Your task to perform on an android device: open app "DoorDash - Food Delivery" (install if not already installed) and go to login screen Image 0: 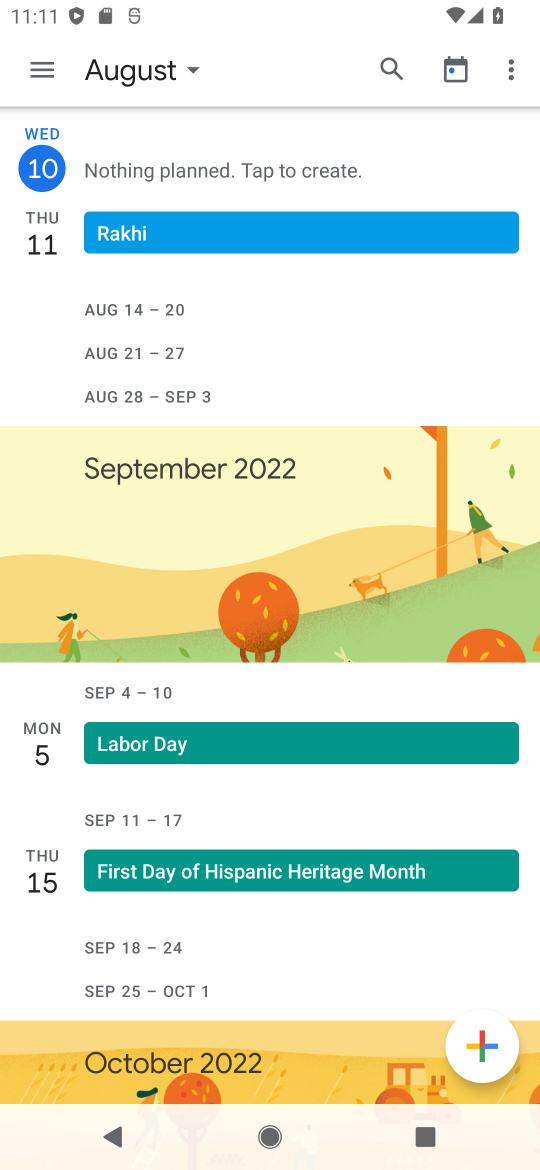
Step 0: press home button
Your task to perform on an android device: open app "DoorDash - Food Delivery" (install if not already installed) and go to login screen Image 1: 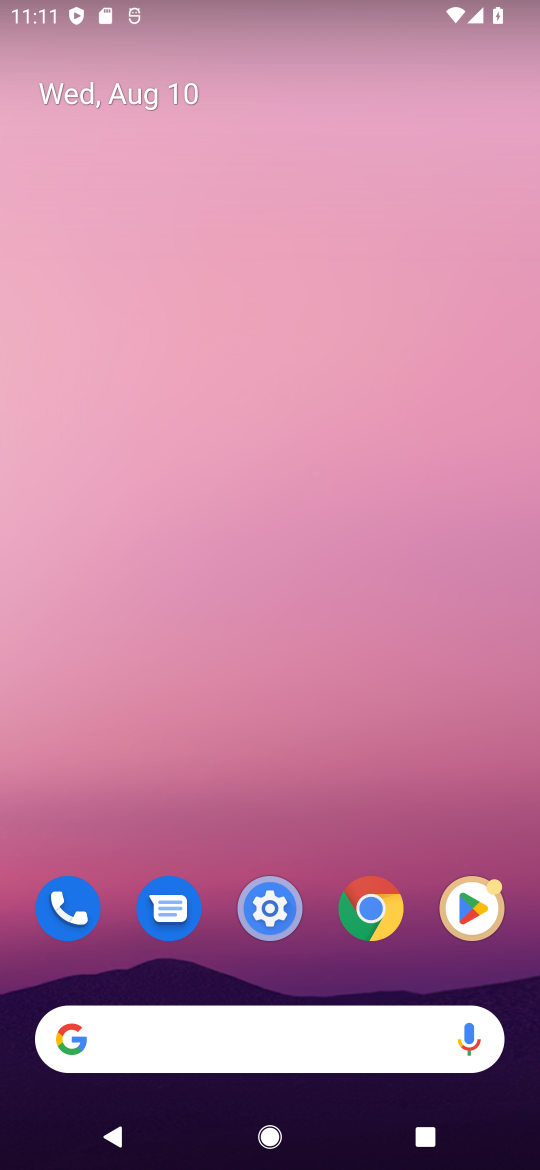
Step 1: click (474, 893)
Your task to perform on an android device: open app "DoorDash - Food Delivery" (install if not already installed) and go to login screen Image 2: 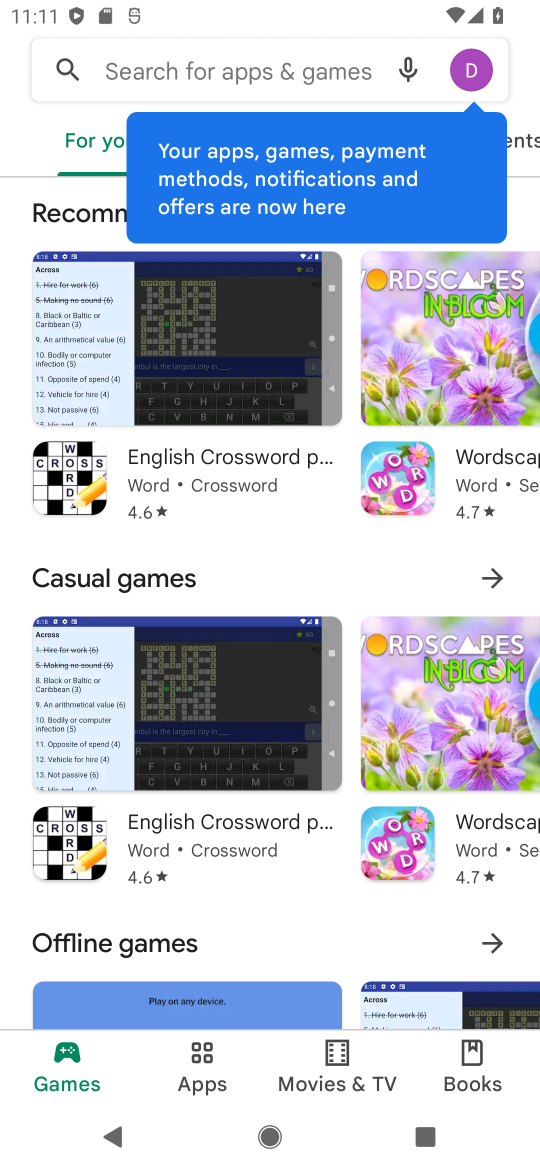
Step 2: click (277, 71)
Your task to perform on an android device: open app "DoorDash - Food Delivery" (install if not already installed) and go to login screen Image 3: 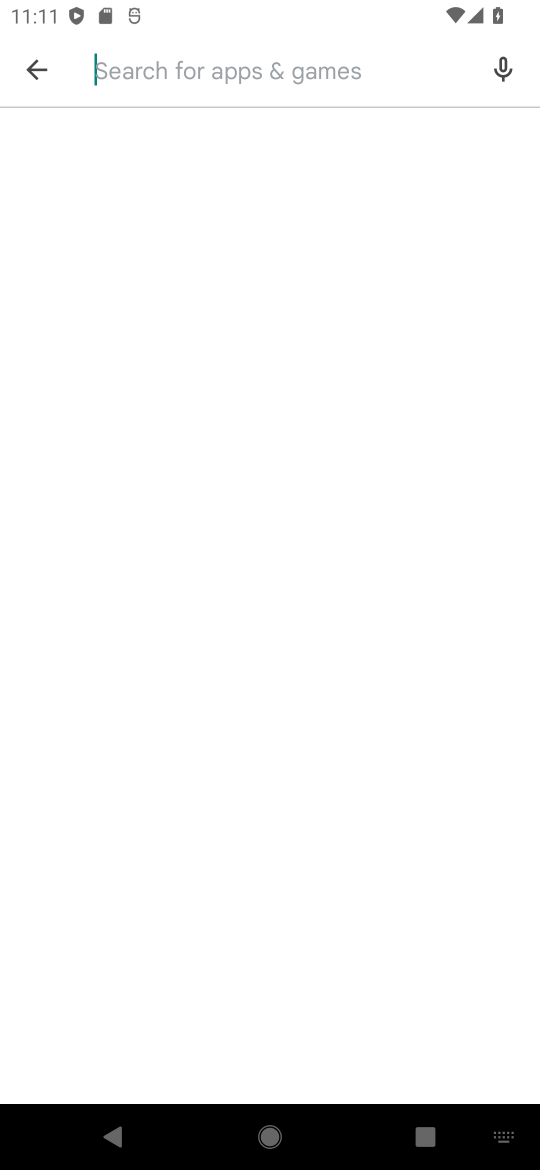
Step 3: type "door dash"
Your task to perform on an android device: open app "DoorDash - Food Delivery" (install if not already installed) and go to login screen Image 4: 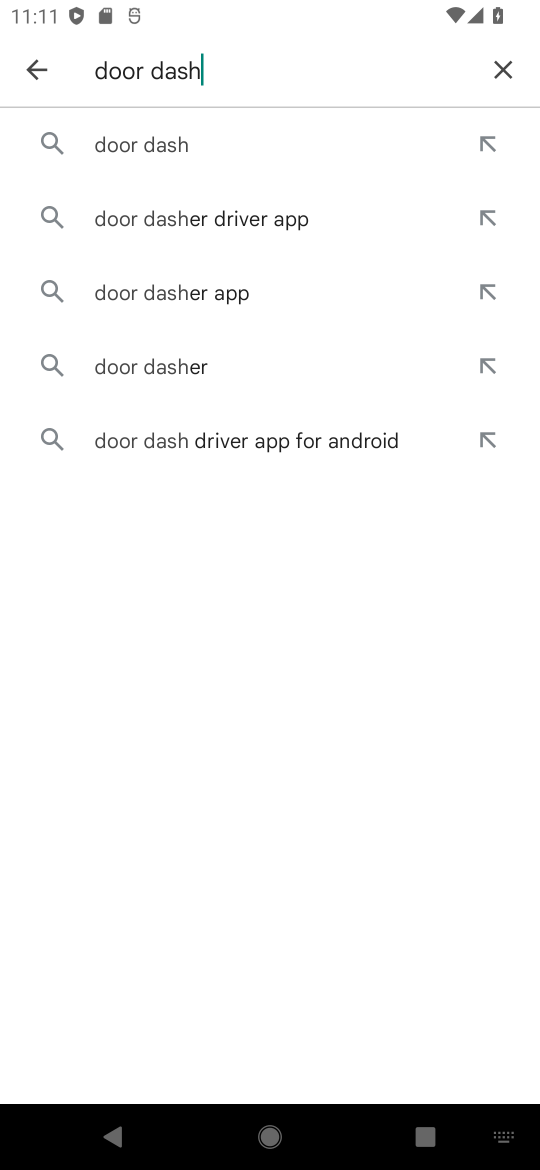
Step 4: click (271, 145)
Your task to perform on an android device: open app "DoorDash - Food Delivery" (install if not already installed) and go to login screen Image 5: 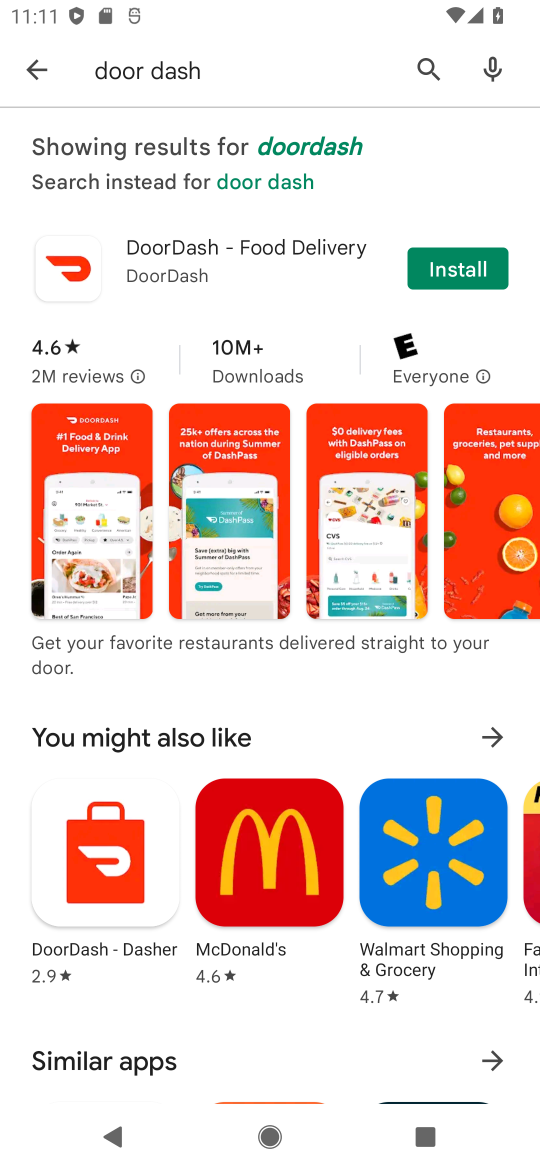
Step 5: click (343, 251)
Your task to perform on an android device: open app "DoorDash - Food Delivery" (install if not already installed) and go to login screen Image 6: 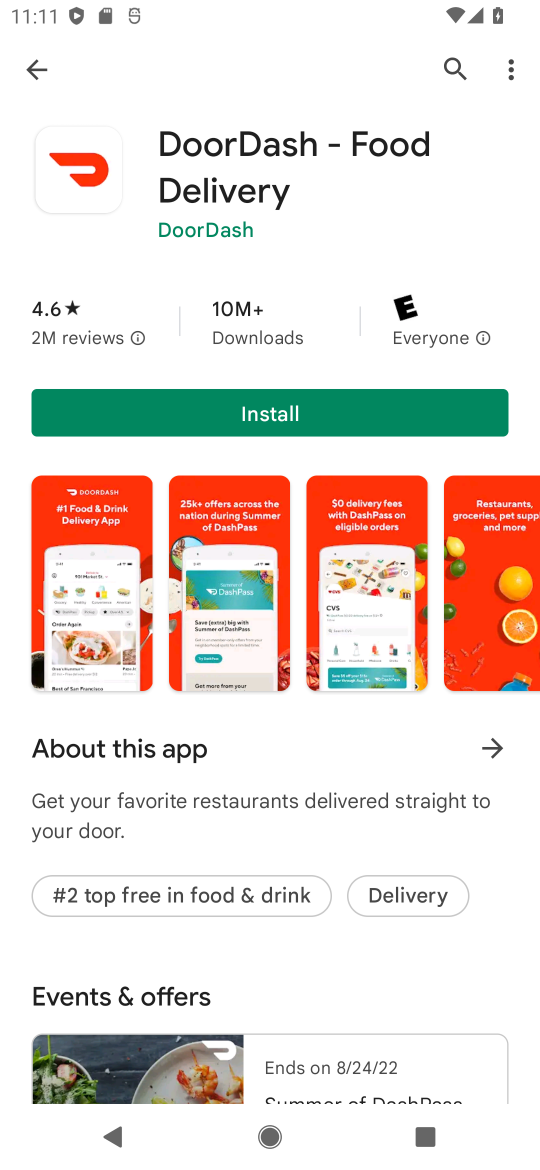
Step 6: click (361, 406)
Your task to perform on an android device: open app "DoorDash - Food Delivery" (install if not already installed) and go to login screen Image 7: 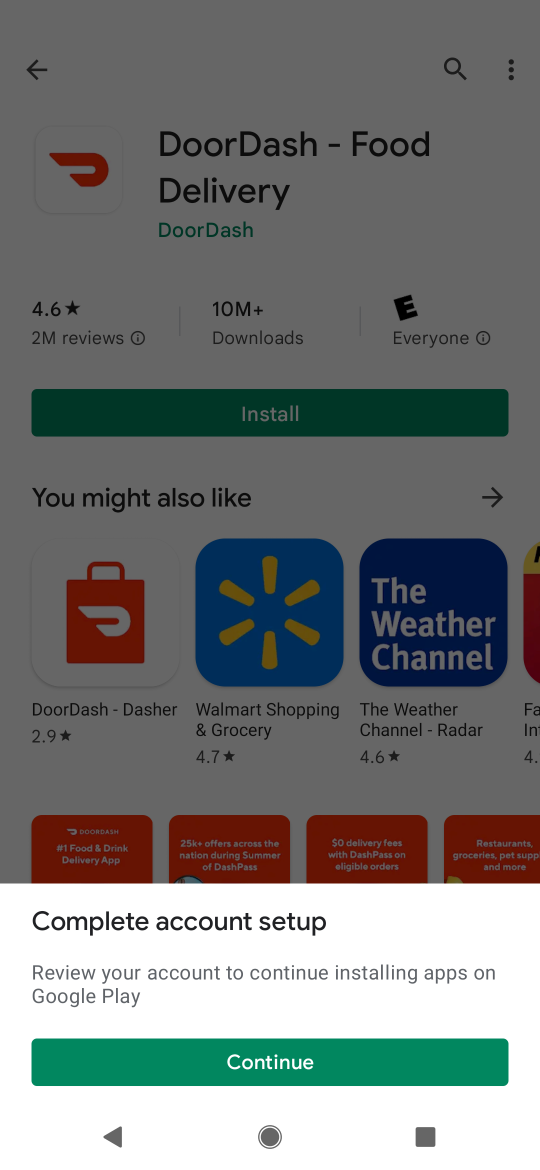
Step 7: click (486, 1069)
Your task to perform on an android device: open app "DoorDash - Food Delivery" (install if not already installed) and go to login screen Image 8: 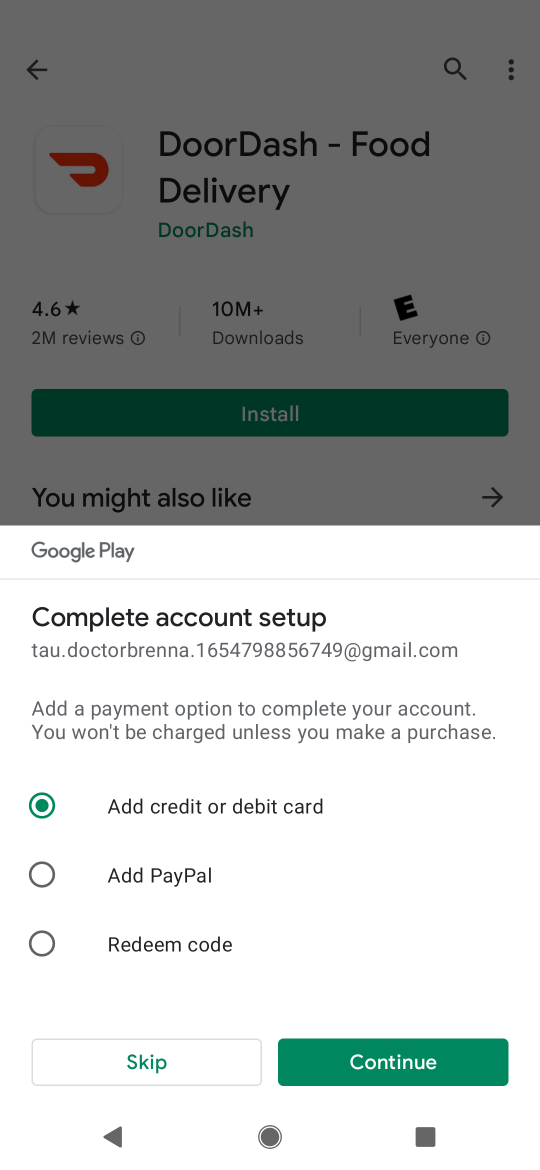
Step 8: click (104, 1065)
Your task to perform on an android device: open app "DoorDash - Food Delivery" (install if not already installed) and go to login screen Image 9: 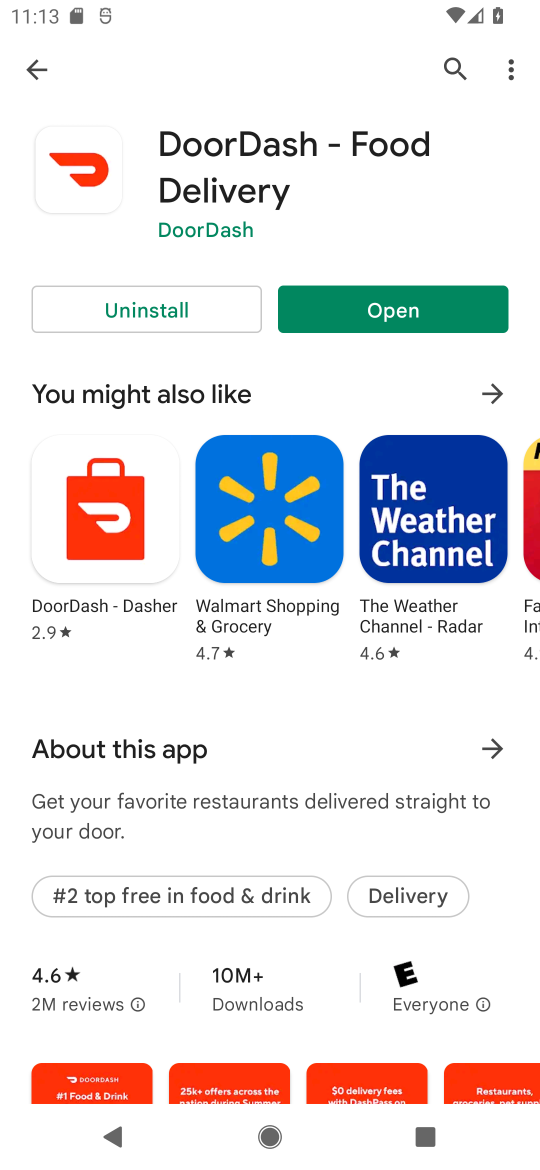
Step 9: click (427, 301)
Your task to perform on an android device: open app "DoorDash - Food Delivery" (install if not already installed) and go to login screen Image 10: 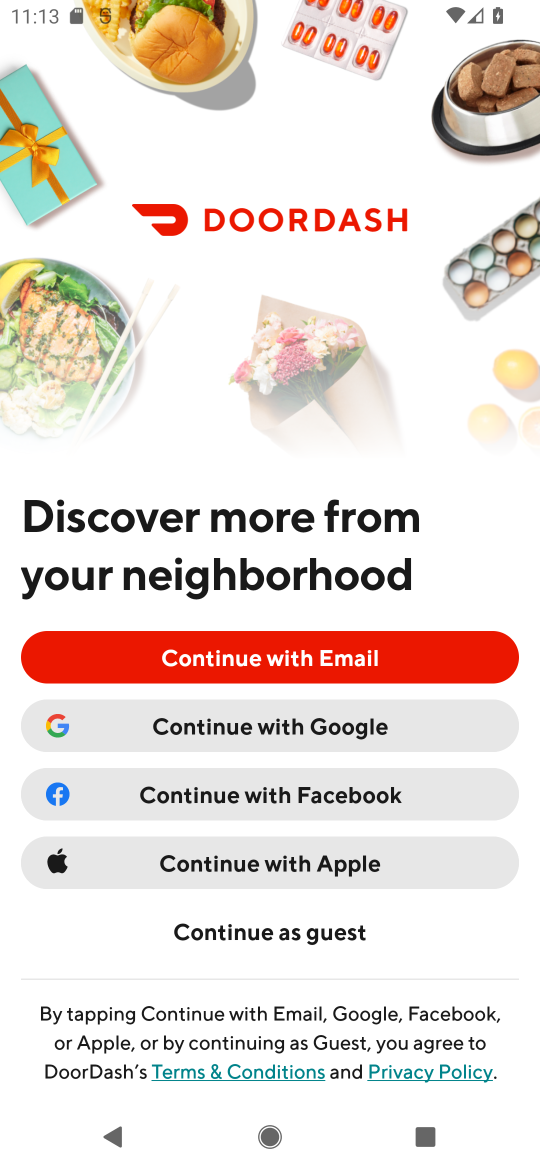
Step 10: task complete